Your task to perform on an android device: toggle improve location accuracy Image 0: 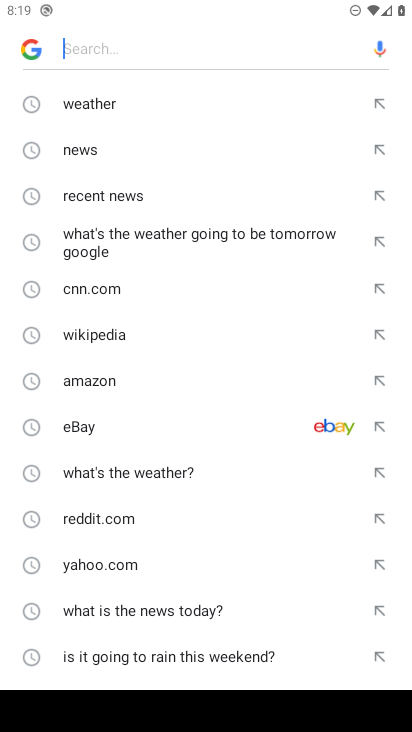
Step 0: drag from (211, 637) to (240, 387)
Your task to perform on an android device: toggle improve location accuracy Image 1: 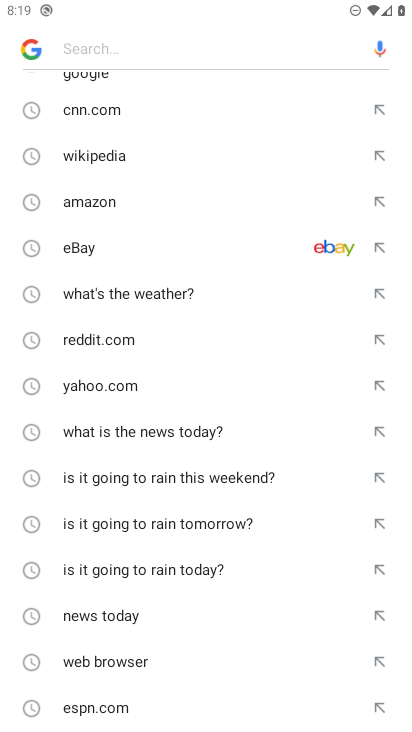
Step 1: press home button
Your task to perform on an android device: toggle improve location accuracy Image 2: 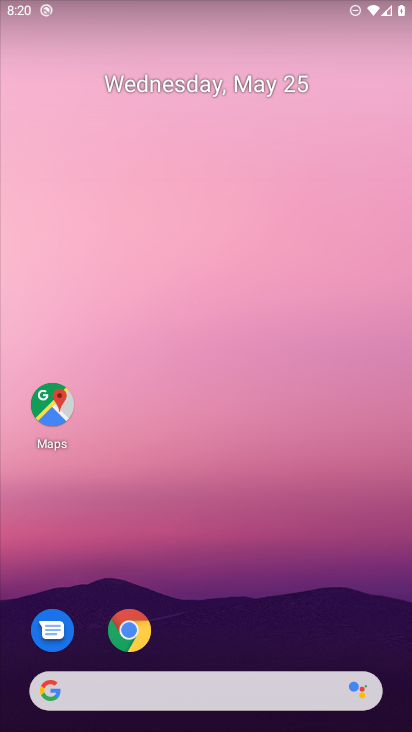
Step 2: drag from (202, 683) to (226, 297)
Your task to perform on an android device: toggle improve location accuracy Image 3: 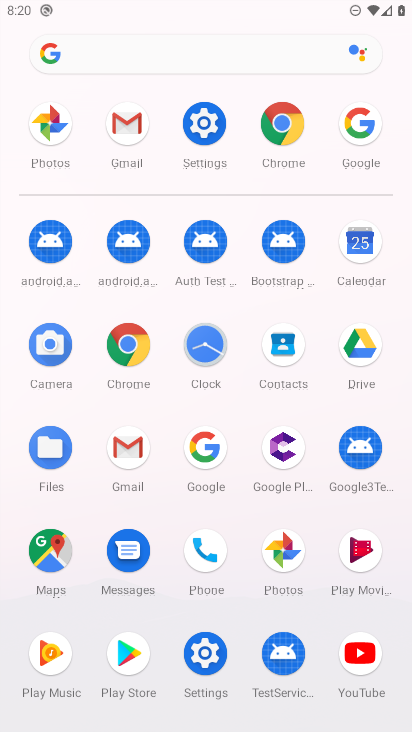
Step 3: click (210, 121)
Your task to perform on an android device: toggle improve location accuracy Image 4: 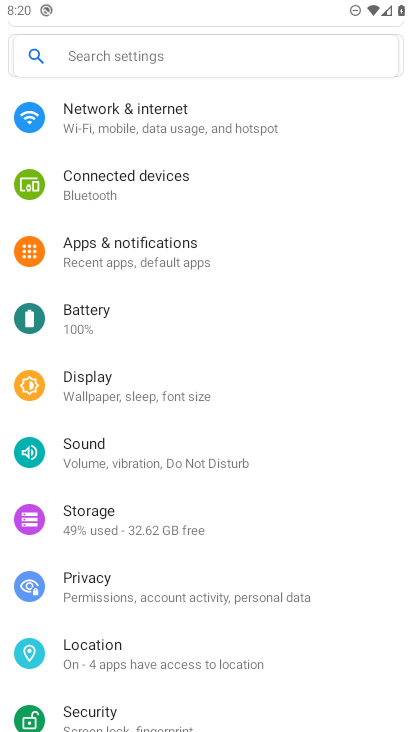
Step 4: click (97, 635)
Your task to perform on an android device: toggle improve location accuracy Image 5: 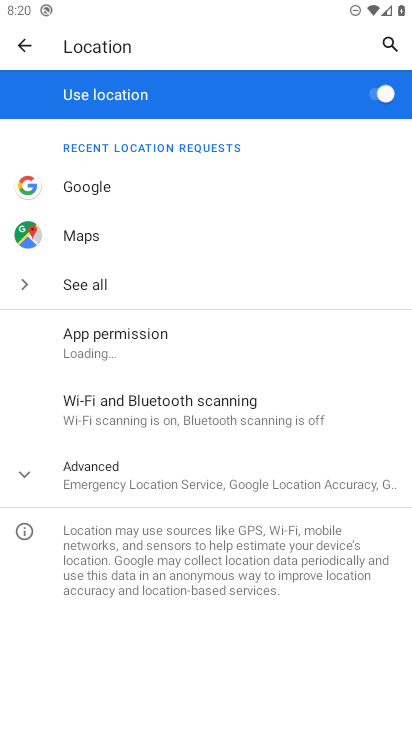
Step 5: click (114, 482)
Your task to perform on an android device: toggle improve location accuracy Image 6: 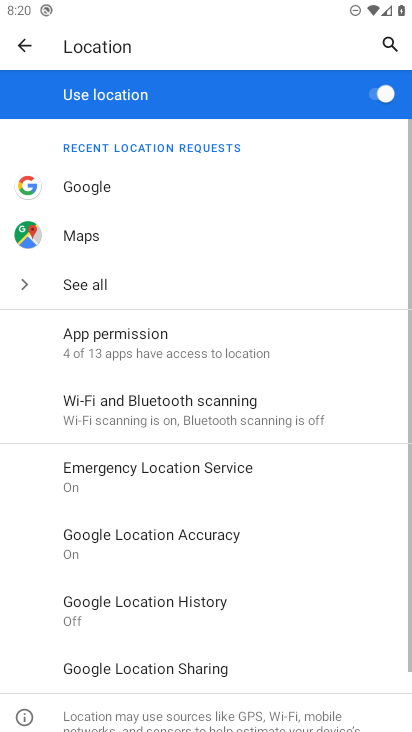
Step 6: click (116, 546)
Your task to perform on an android device: toggle improve location accuracy Image 7: 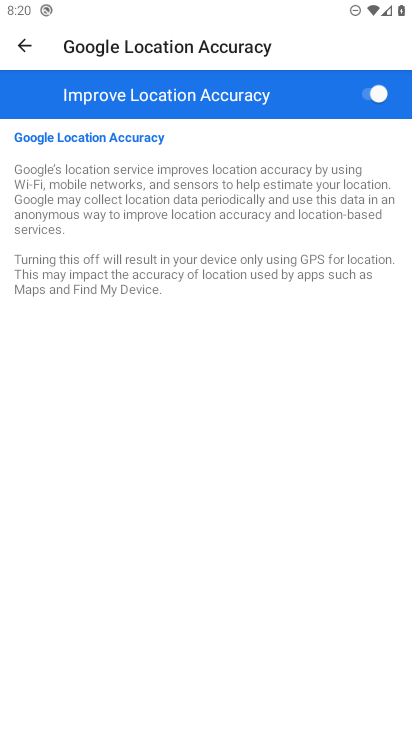
Step 7: click (361, 100)
Your task to perform on an android device: toggle improve location accuracy Image 8: 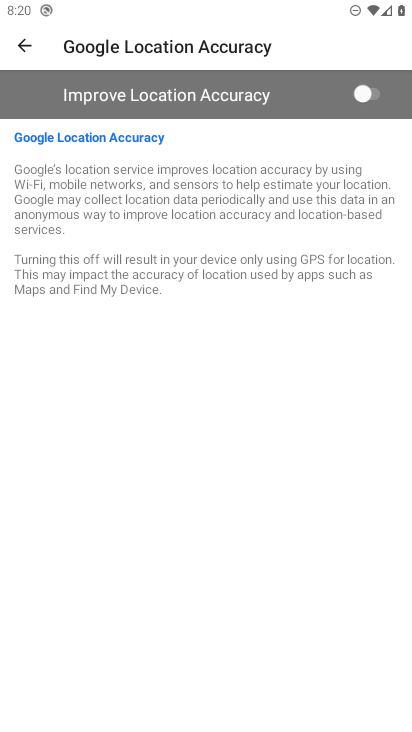
Step 8: task complete